Your task to perform on an android device: install app "Contacts" Image 0: 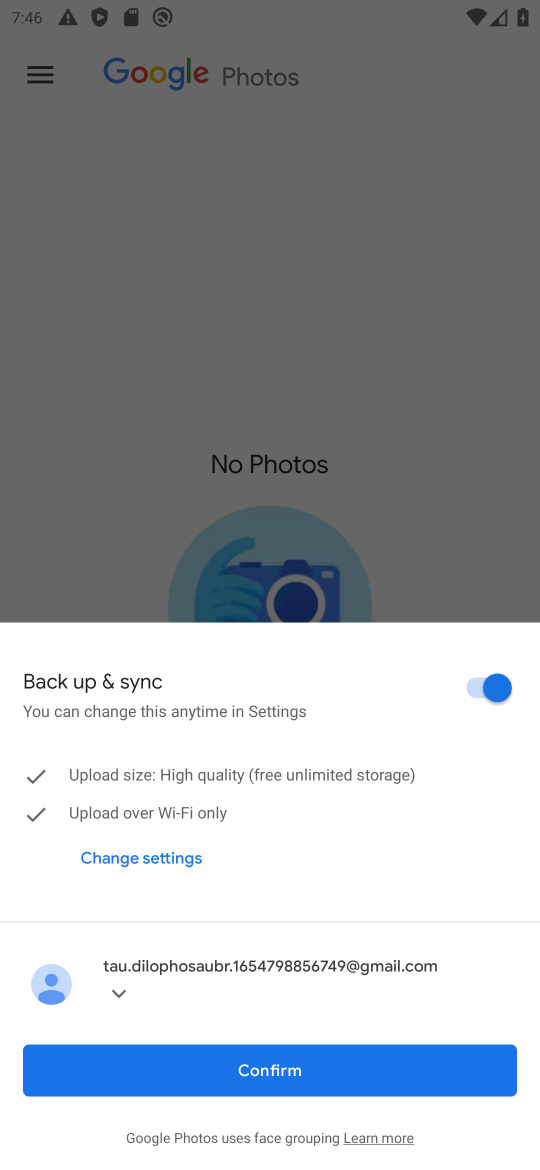
Step 0: press home button
Your task to perform on an android device: install app "Contacts" Image 1: 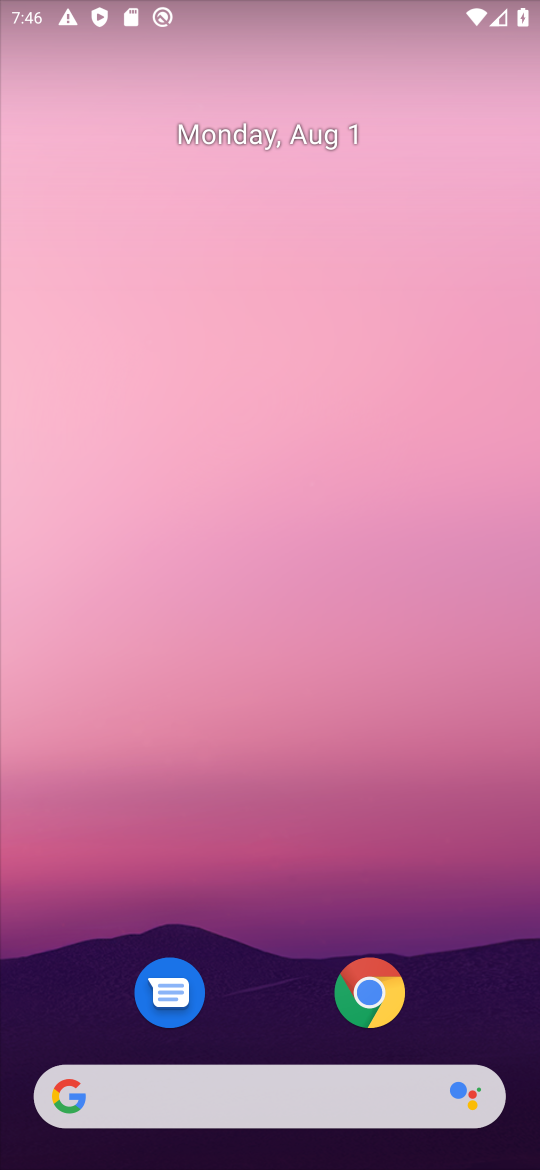
Step 1: drag from (250, 952) to (361, 12)
Your task to perform on an android device: install app "Contacts" Image 2: 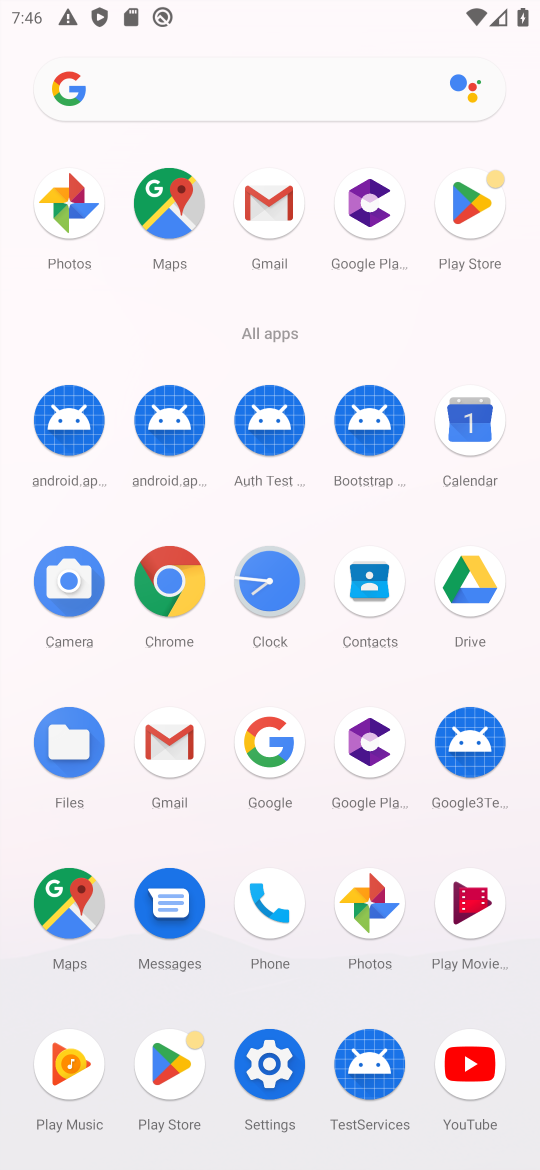
Step 2: click (472, 290)
Your task to perform on an android device: install app "Contacts" Image 3: 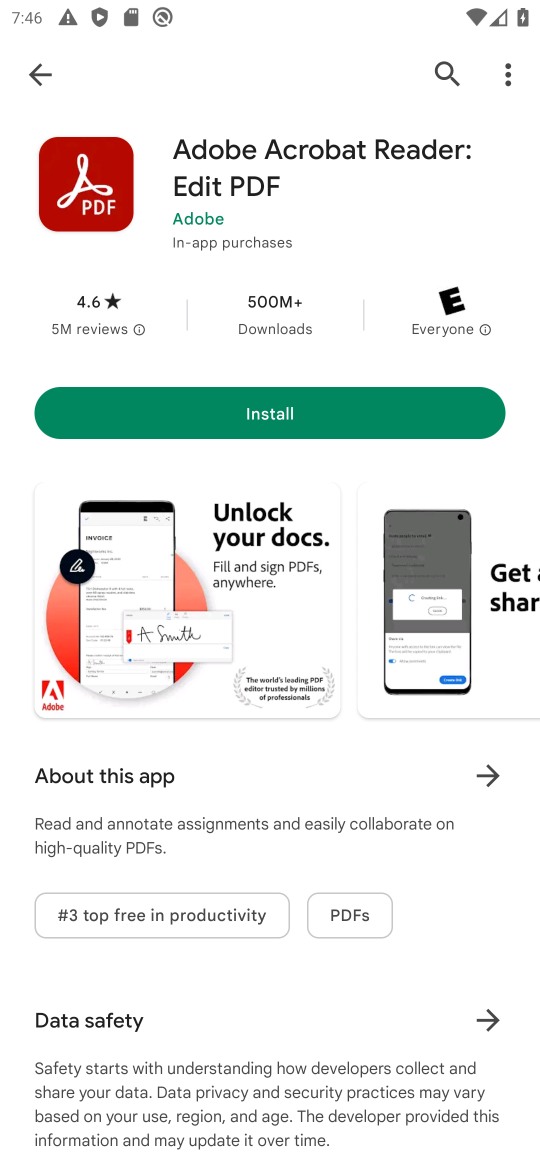
Step 3: click (445, 88)
Your task to perform on an android device: install app "Contacts" Image 4: 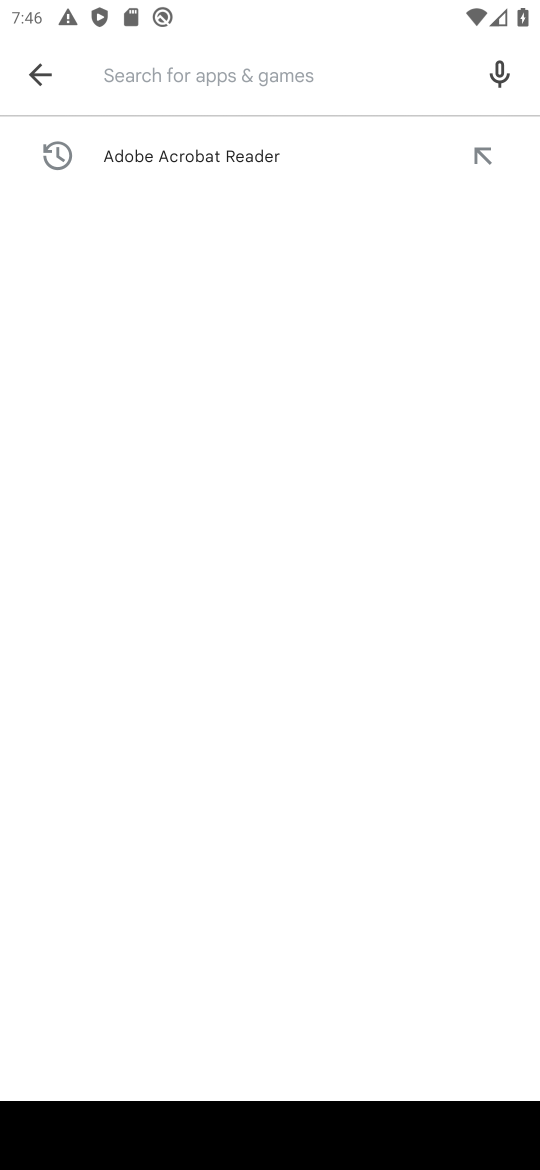
Step 4: type "Contacts"
Your task to perform on an android device: install app "Contacts" Image 5: 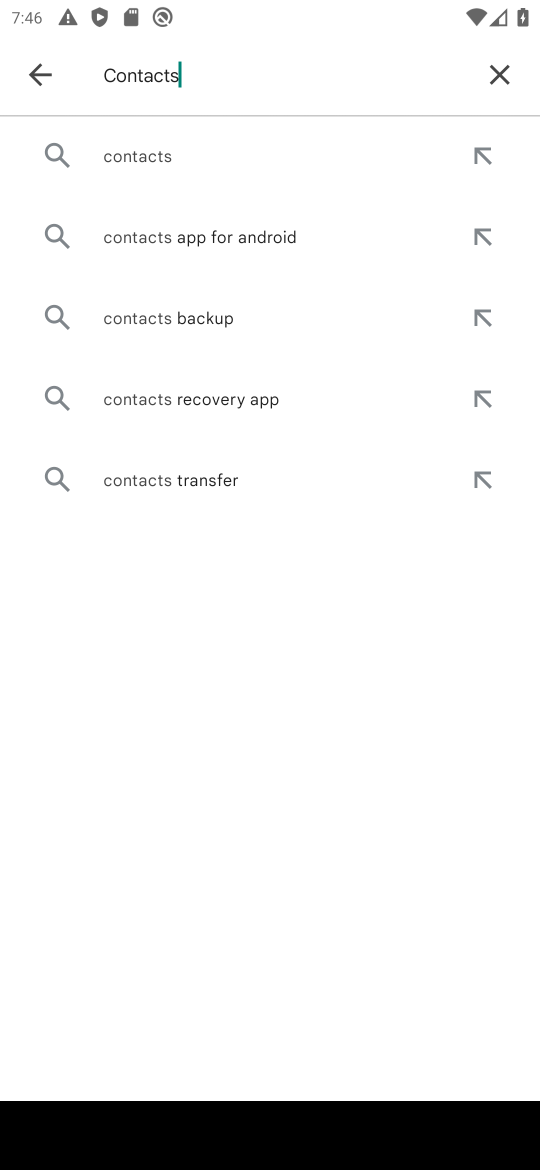
Step 5: click (216, 152)
Your task to perform on an android device: install app "Contacts" Image 6: 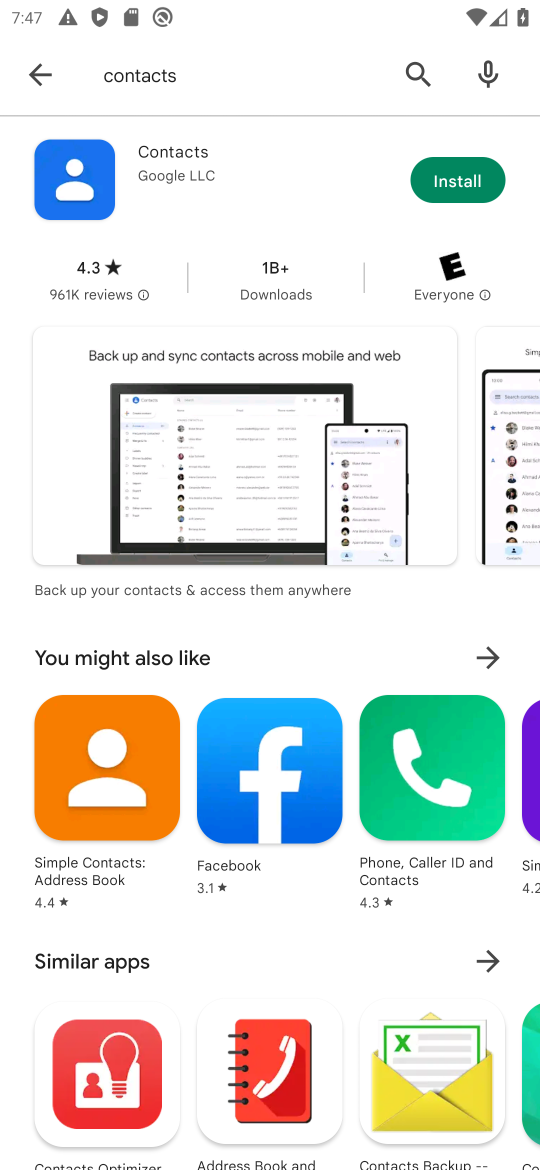
Step 6: click (452, 185)
Your task to perform on an android device: install app "Contacts" Image 7: 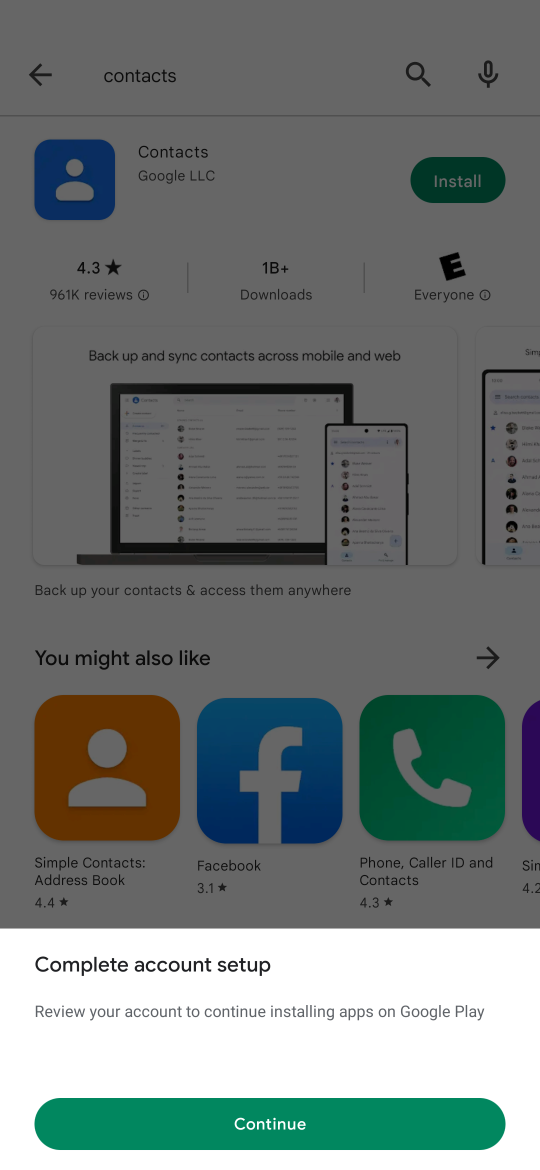
Step 7: click (348, 1115)
Your task to perform on an android device: install app "Contacts" Image 8: 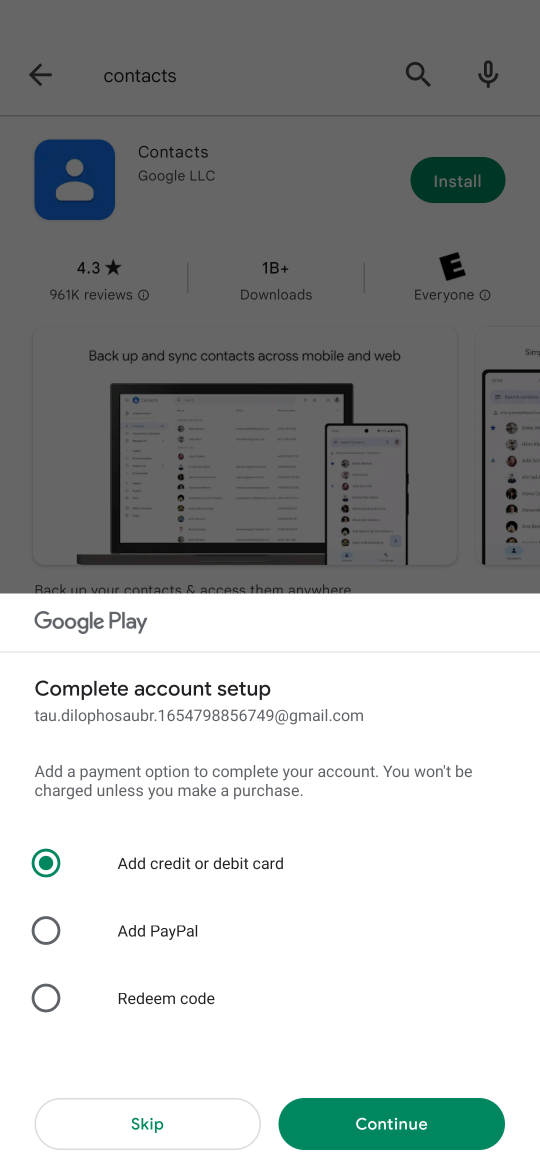
Step 8: click (113, 1138)
Your task to perform on an android device: install app "Contacts" Image 9: 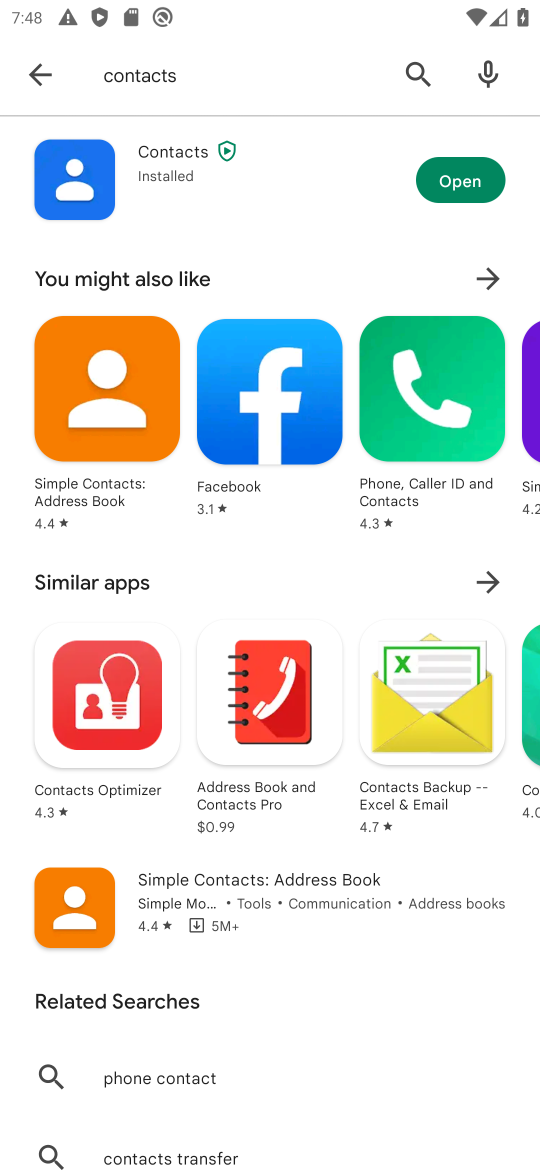
Step 9: task complete